Your task to perform on an android device: Search for Mexican restaurants on Maps Image 0: 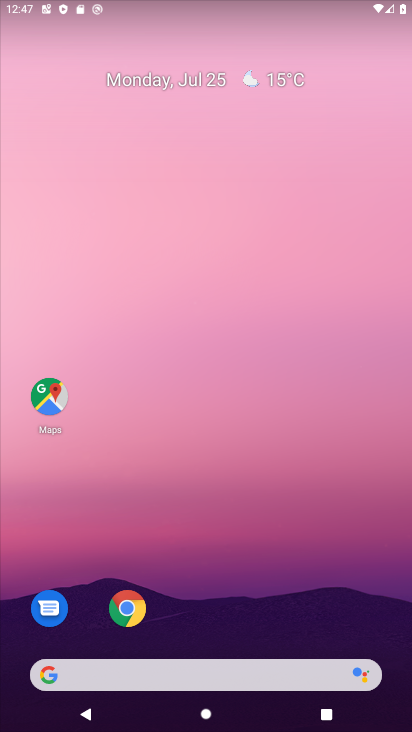
Step 0: drag from (217, 623) to (234, 117)
Your task to perform on an android device: Search for Mexican restaurants on Maps Image 1: 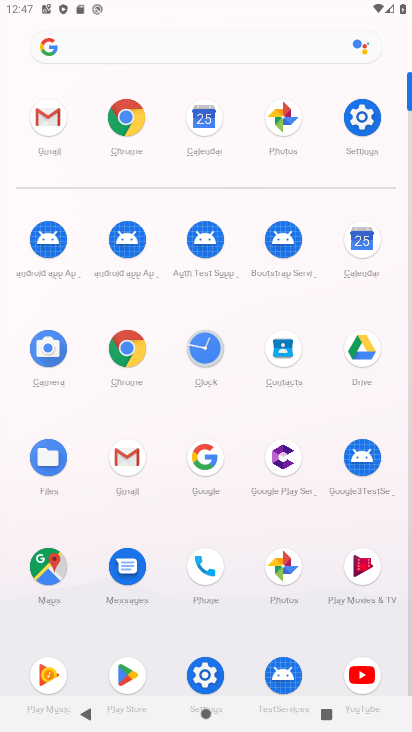
Step 1: click (54, 580)
Your task to perform on an android device: Search for Mexican restaurants on Maps Image 2: 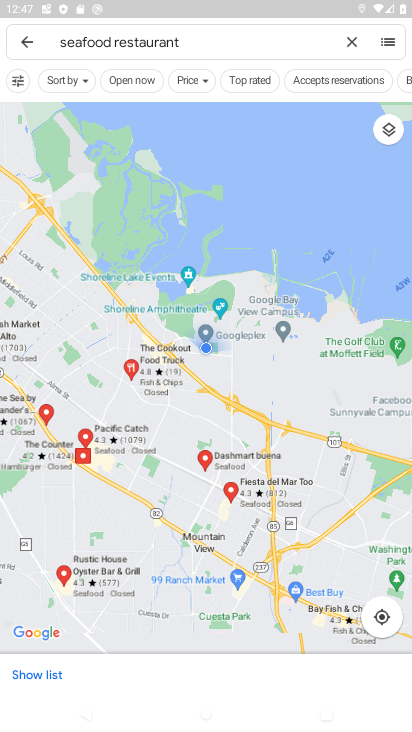
Step 2: click (345, 38)
Your task to perform on an android device: Search for Mexican restaurants on Maps Image 3: 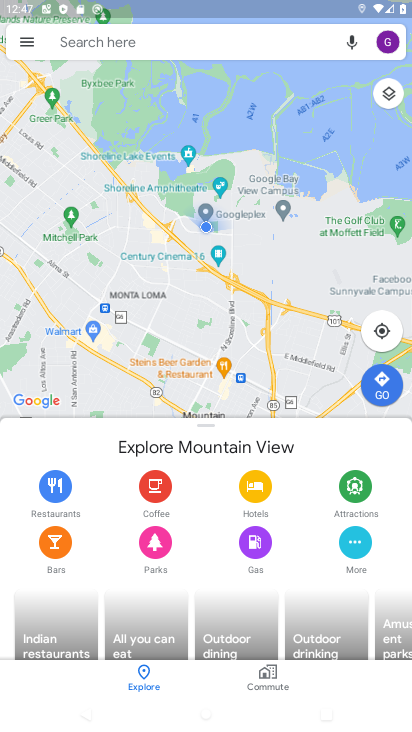
Step 3: click (197, 42)
Your task to perform on an android device: Search for Mexican restaurants on Maps Image 4: 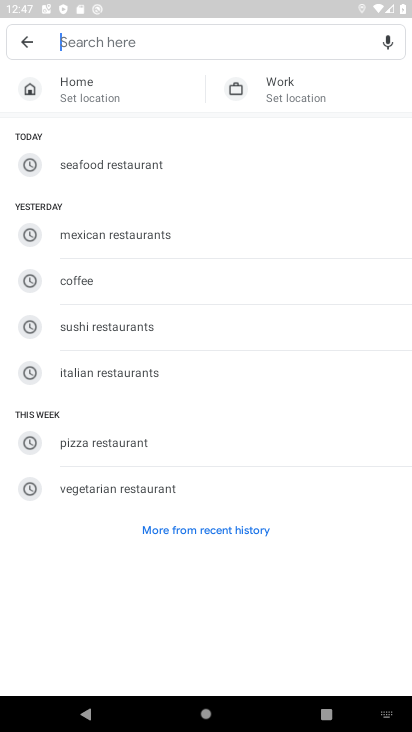
Step 4: click (179, 240)
Your task to perform on an android device: Search for Mexican restaurants on Maps Image 5: 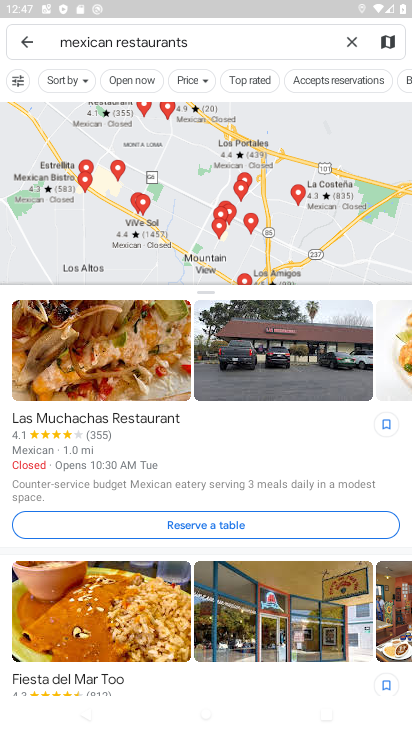
Step 5: task complete